Your task to perform on an android device: allow cookies in the chrome app Image 0: 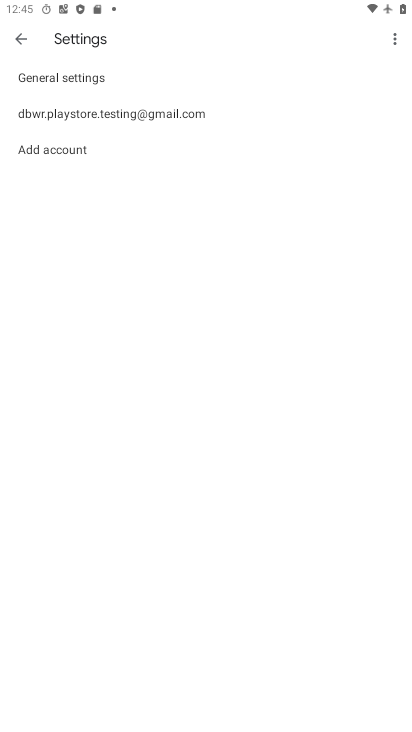
Step 0: press home button
Your task to perform on an android device: allow cookies in the chrome app Image 1: 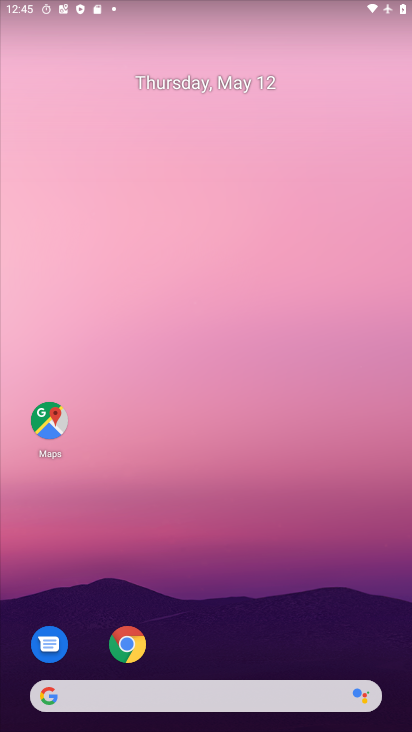
Step 1: click (128, 641)
Your task to perform on an android device: allow cookies in the chrome app Image 2: 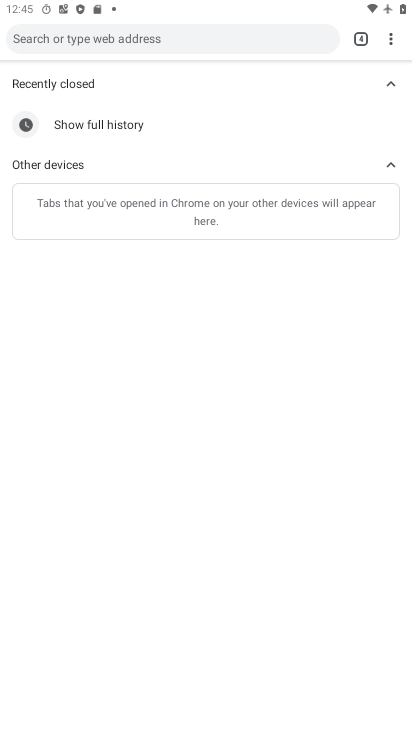
Step 2: click (387, 40)
Your task to perform on an android device: allow cookies in the chrome app Image 3: 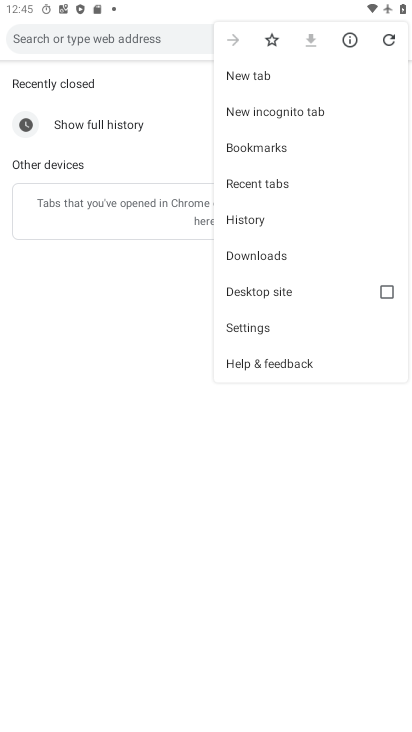
Step 3: click (261, 328)
Your task to perform on an android device: allow cookies in the chrome app Image 4: 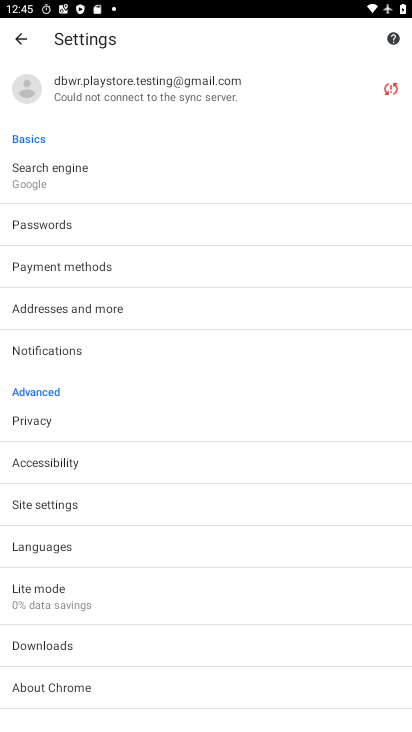
Step 4: click (109, 498)
Your task to perform on an android device: allow cookies in the chrome app Image 5: 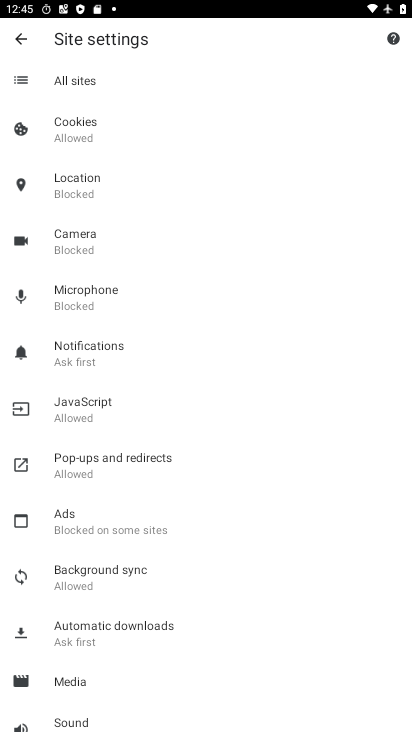
Step 5: click (129, 131)
Your task to perform on an android device: allow cookies in the chrome app Image 6: 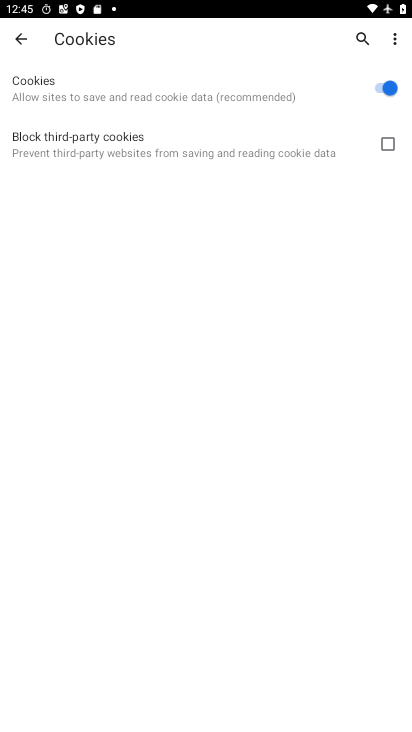
Step 6: task complete